Your task to perform on an android device: toggle priority inbox in the gmail app Image 0: 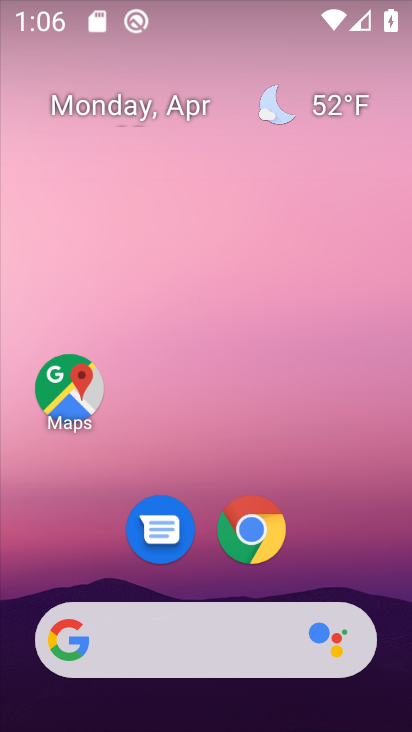
Step 0: drag from (390, 408) to (379, 236)
Your task to perform on an android device: toggle priority inbox in the gmail app Image 1: 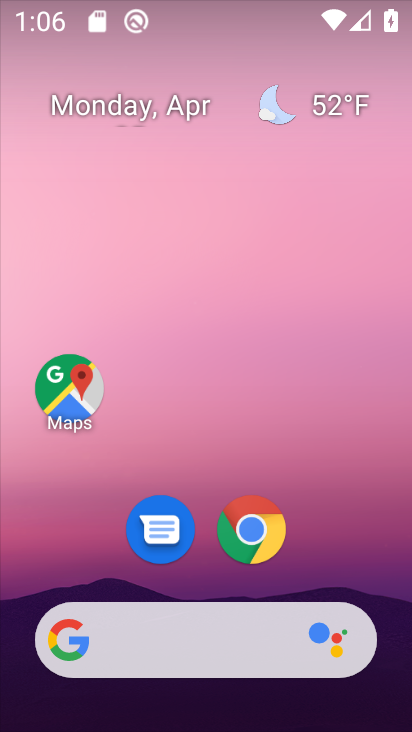
Step 1: drag from (389, 538) to (347, 202)
Your task to perform on an android device: toggle priority inbox in the gmail app Image 2: 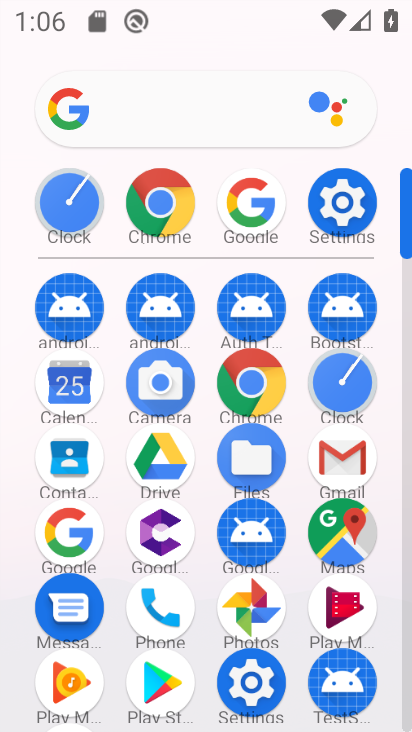
Step 2: click (344, 453)
Your task to perform on an android device: toggle priority inbox in the gmail app Image 3: 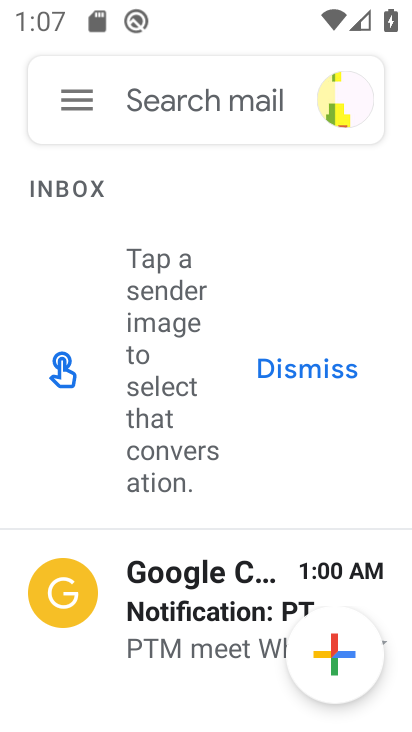
Step 3: click (82, 99)
Your task to perform on an android device: toggle priority inbox in the gmail app Image 4: 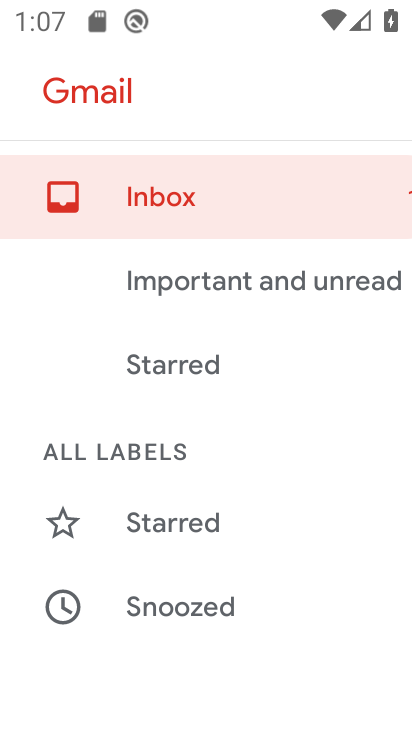
Step 4: drag from (328, 491) to (330, 328)
Your task to perform on an android device: toggle priority inbox in the gmail app Image 5: 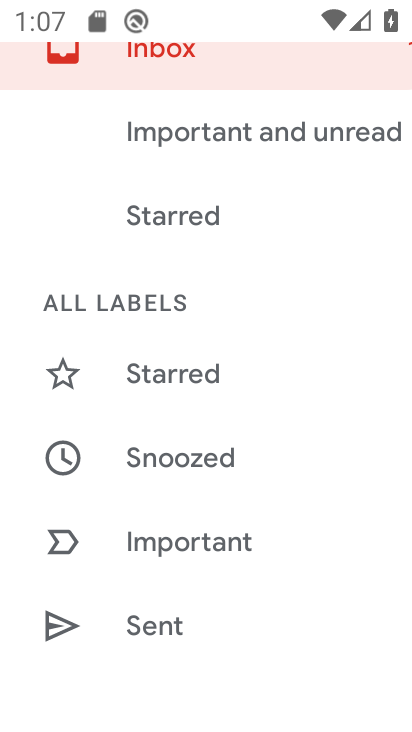
Step 5: drag from (370, 420) to (372, 267)
Your task to perform on an android device: toggle priority inbox in the gmail app Image 6: 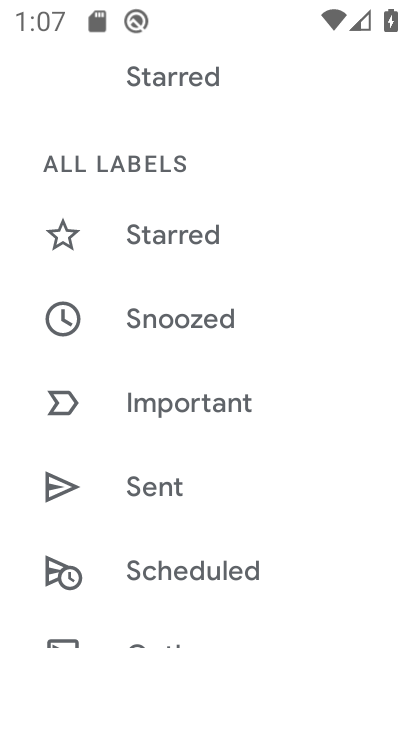
Step 6: drag from (372, 542) to (394, 262)
Your task to perform on an android device: toggle priority inbox in the gmail app Image 7: 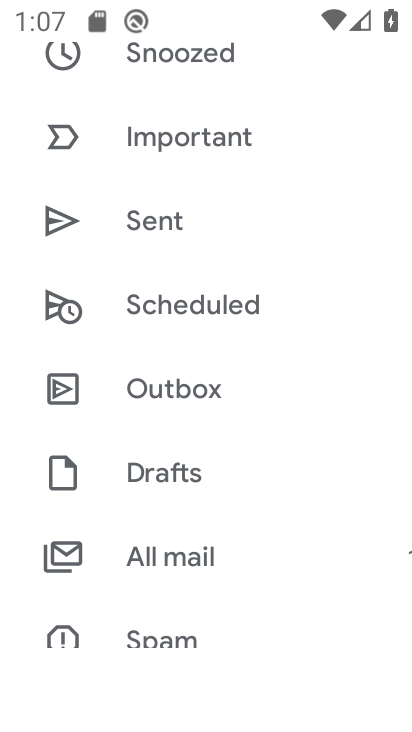
Step 7: drag from (378, 496) to (405, 266)
Your task to perform on an android device: toggle priority inbox in the gmail app Image 8: 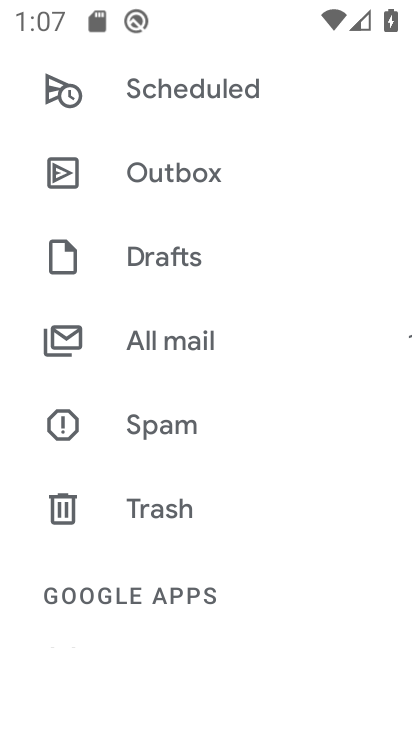
Step 8: drag from (335, 538) to (334, 233)
Your task to perform on an android device: toggle priority inbox in the gmail app Image 9: 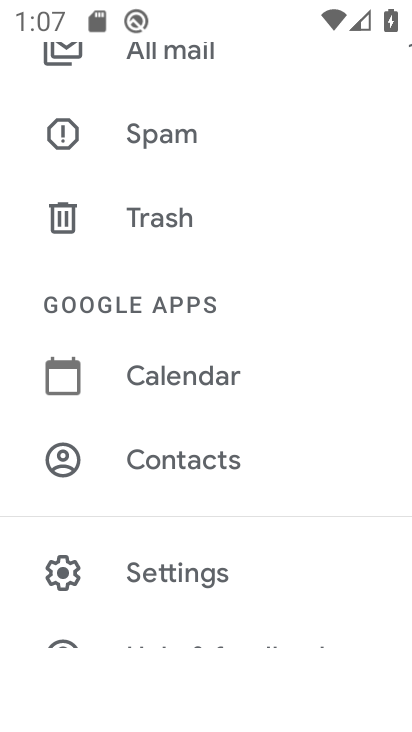
Step 9: drag from (333, 388) to (323, 270)
Your task to perform on an android device: toggle priority inbox in the gmail app Image 10: 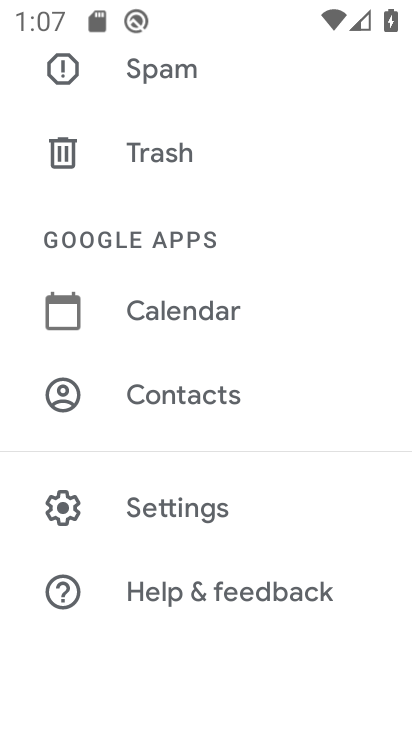
Step 10: click (132, 500)
Your task to perform on an android device: toggle priority inbox in the gmail app Image 11: 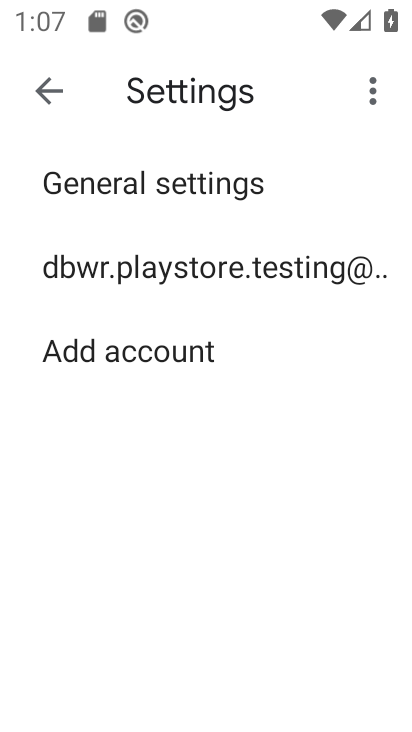
Step 11: click (181, 260)
Your task to perform on an android device: toggle priority inbox in the gmail app Image 12: 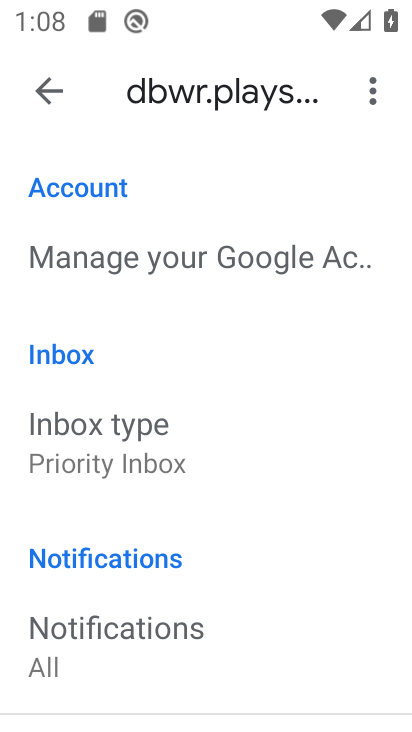
Step 12: click (107, 458)
Your task to perform on an android device: toggle priority inbox in the gmail app Image 13: 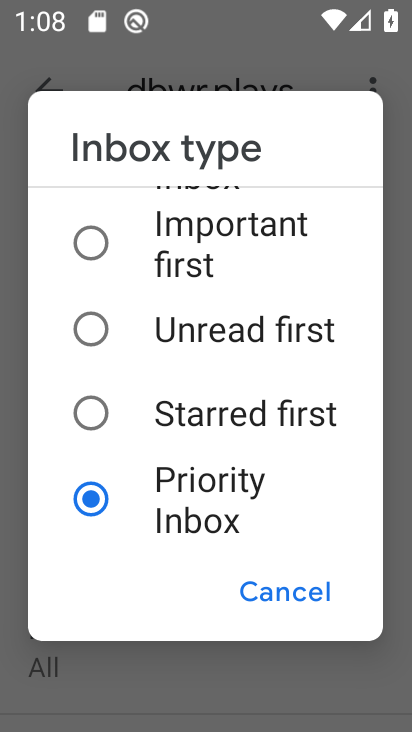
Step 13: click (83, 400)
Your task to perform on an android device: toggle priority inbox in the gmail app Image 14: 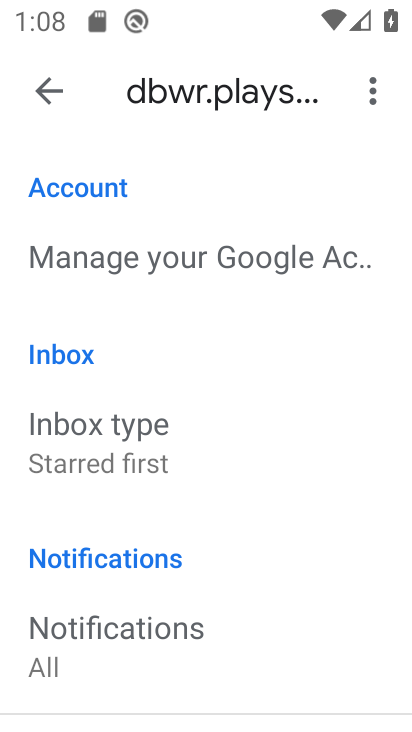
Step 14: task complete